Your task to perform on an android device: change the upload size in google photos Image 0: 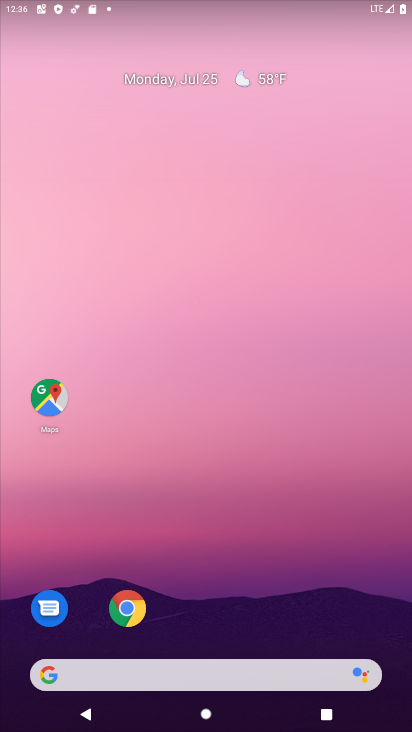
Step 0: drag from (174, 664) to (198, 29)
Your task to perform on an android device: change the upload size in google photos Image 1: 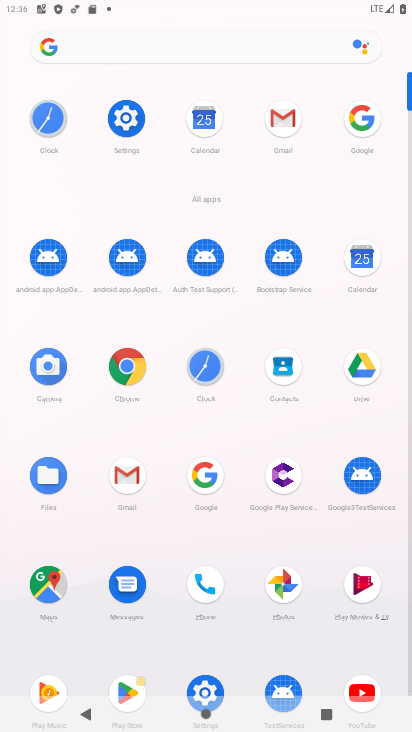
Step 1: click (282, 584)
Your task to perform on an android device: change the upload size in google photos Image 2: 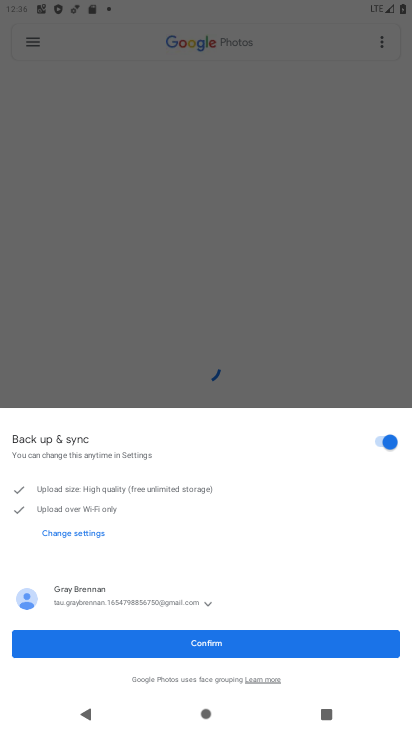
Step 2: click (205, 643)
Your task to perform on an android device: change the upload size in google photos Image 3: 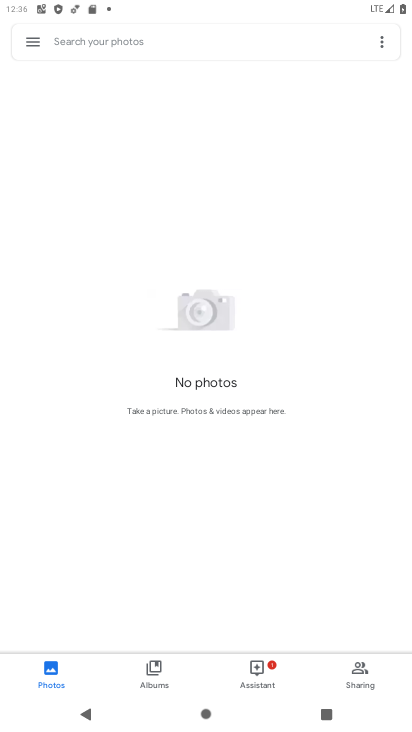
Step 3: click (34, 40)
Your task to perform on an android device: change the upload size in google photos Image 4: 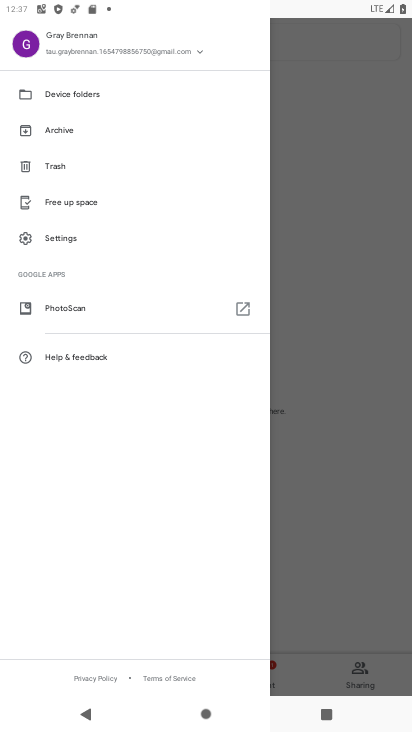
Step 4: click (62, 238)
Your task to perform on an android device: change the upload size in google photos Image 5: 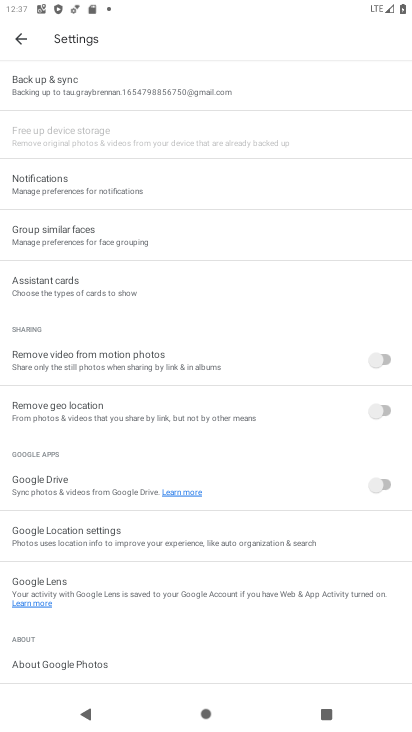
Step 5: click (107, 89)
Your task to perform on an android device: change the upload size in google photos Image 6: 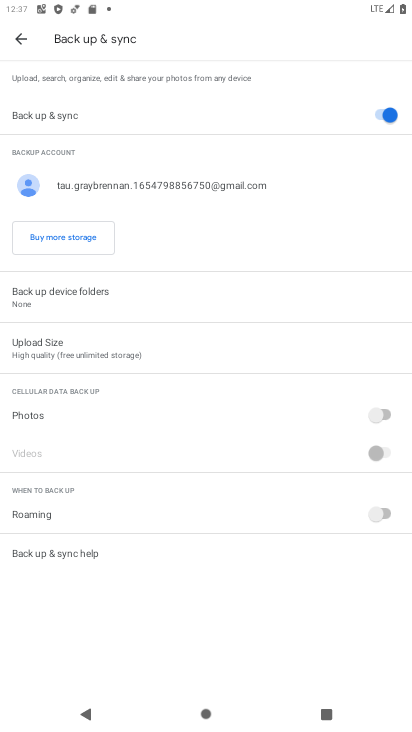
Step 6: click (81, 350)
Your task to perform on an android device: change the upload size in google photos Image 7: 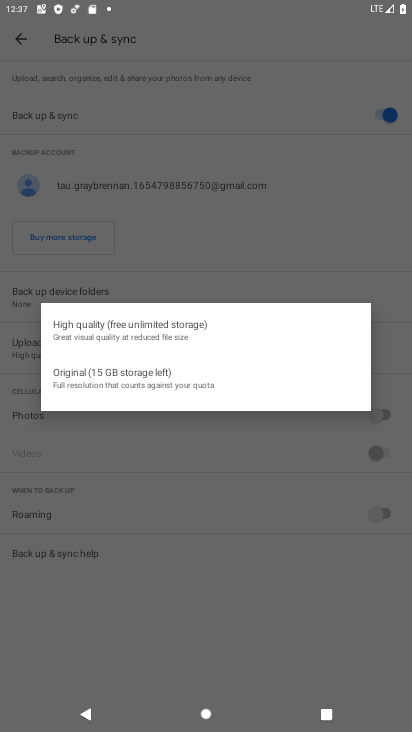
Step 7: click (83, 373)
Your task to perform on an android device: change the upload size in google photos Image 8: 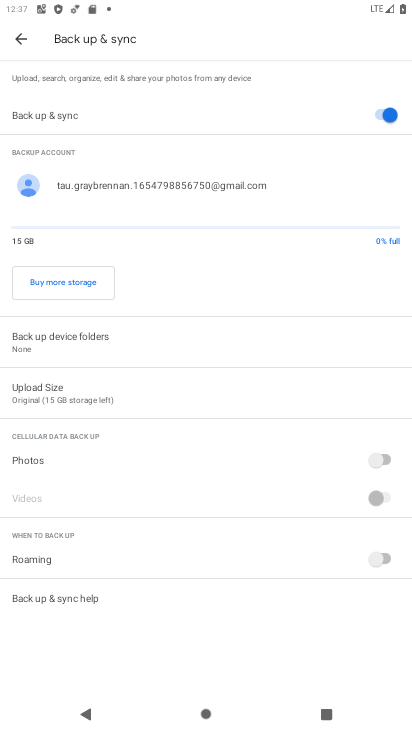
Step 8: task complete